Your task to perform on an android device: turn off notifications settings in the gmail app Image 0: 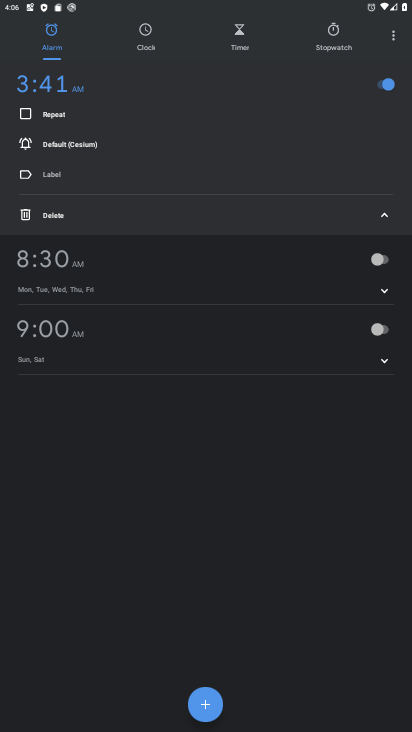
Step 0: press home button
Your task to perform on an android device: turn off notifications settings in the gmail app Image 1: 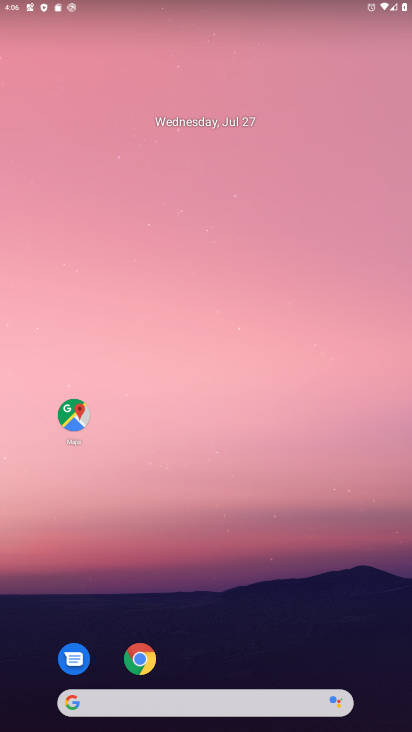
Step 1: drag from (279, 617) to (220, 196)
Your task to perform on an android device: turn off notifications settings in the gmail app Image 2: 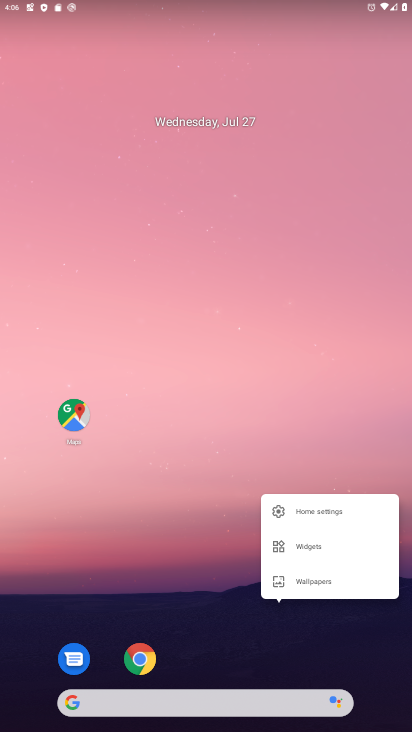
Step 2: click (177, 322)
Your task to perform on an android device: turn off notifications settings in the gmail app Image 3: 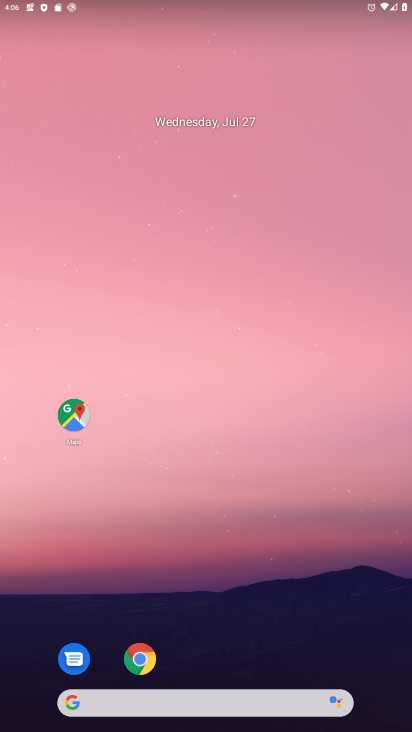
Step 3: drag from (248, 630) to (222, 6)
Your task to perform on an android device: turn off notifications settings in the gmail app Image 4: 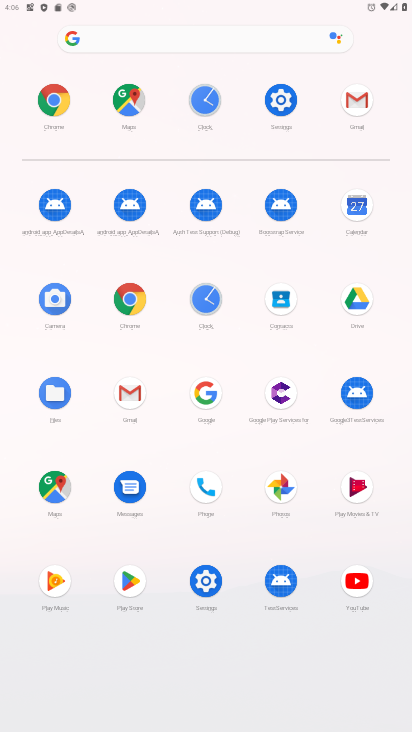
Step 4: click (131, 395)
Your task to perform on an android device: turn off notifications settings in the gmail app Image 5: 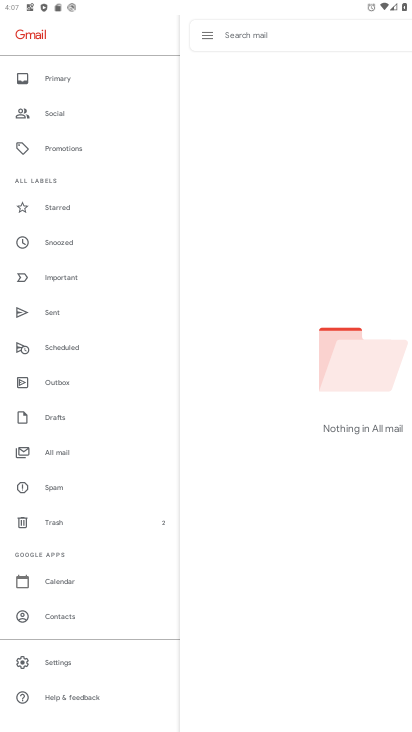
Step 5: click (50, 658)
Your task to perform on an android device: turn off notifications settings in the gmail app Image 6: 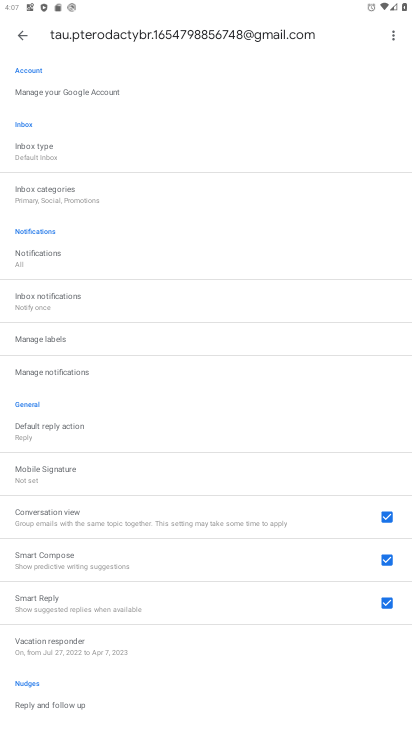
Step 6: click (80, 375)
Your task to perform on an android device: turn off notifications settings in the gmail app Image 7: 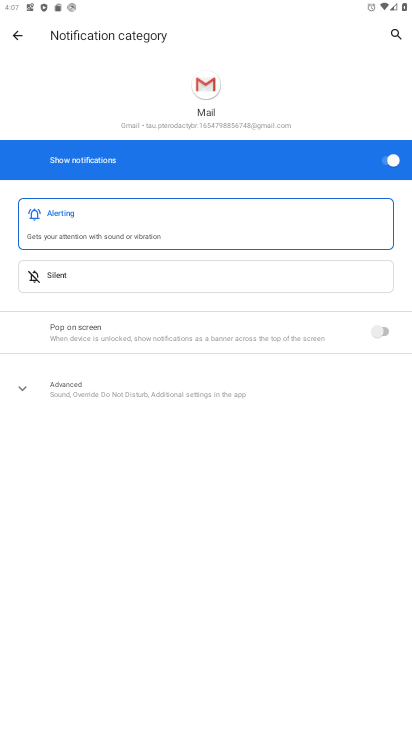
Step 7: click (385, 147)
Your task to perform on an android device: turn off notifications settings in the gmail app Image 8: 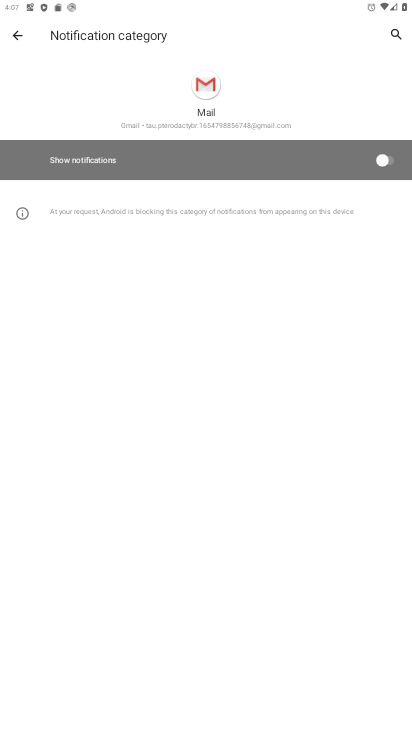
Step 8: task complete